Your task to perform on an android device: Go to network settings Image 0: 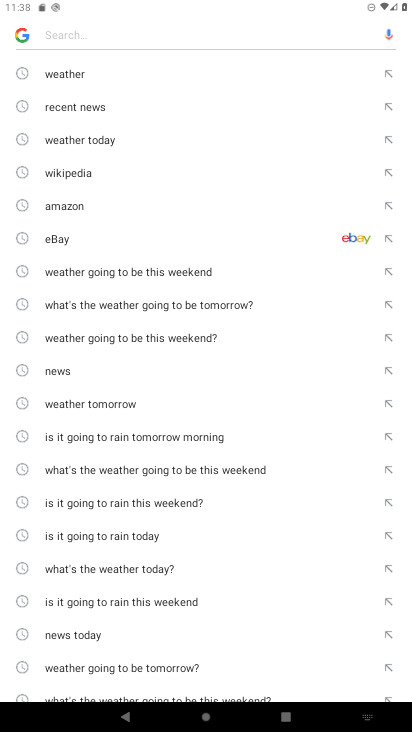
Step 0: press home button
Your task to perform on an android device: Go to network settings Image 1: 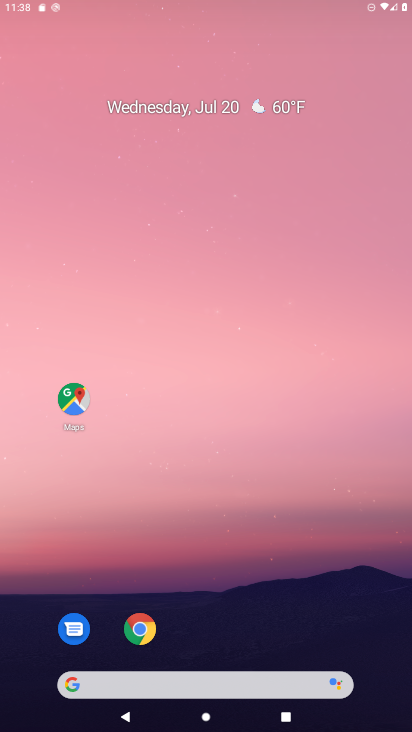
Step 1: drag from (195, 628) to (207, 131)
Your task to perform on an android device: Go to network settings Image 2: 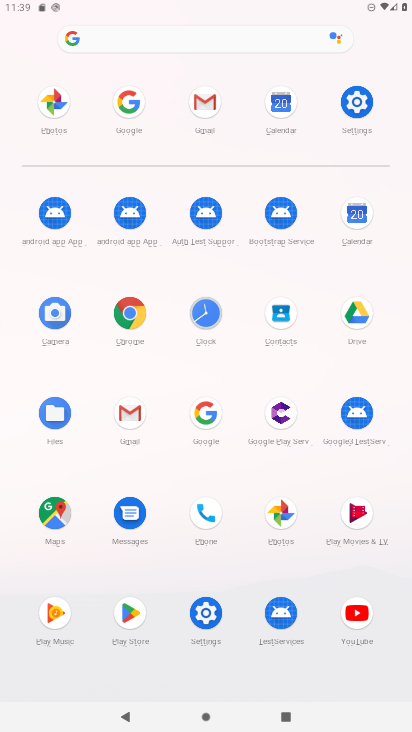
Step 2: click (379, 118)
Your task to perform on an android device: Go to network settings Image 3: 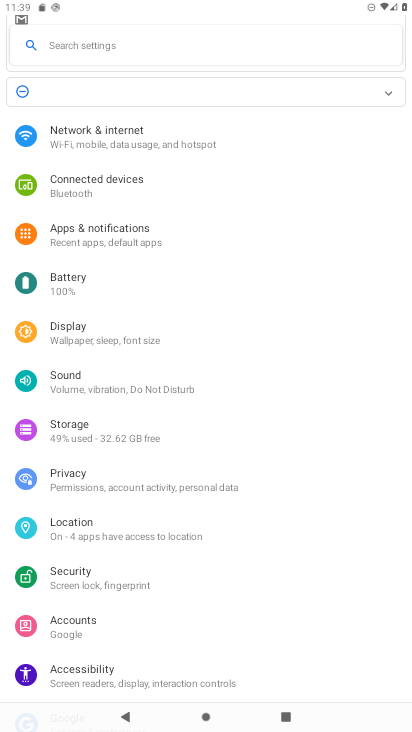
Step 3: click (130, 124)
Your task to perform on an android device: Go to network settings Image 4: 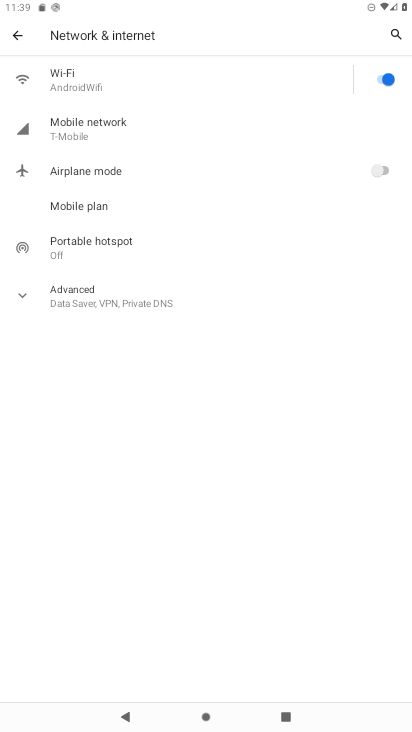
Step 4: task complete